Your task to perform on an android device: Open settings Image 0: 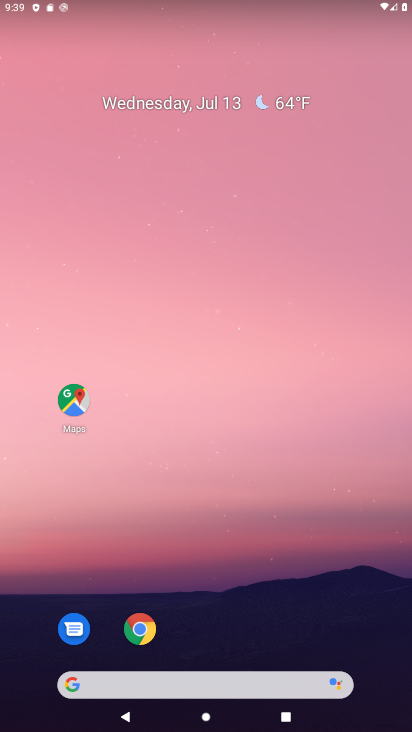
Step 0: drag from (247, 608) to (247, 283)
Your task to perform on an android device: Open settings Image 1: 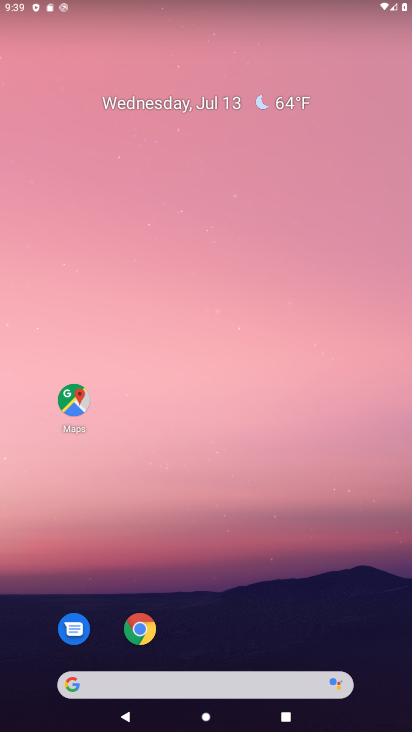
Step 1: drag from (273, 634) to (253, 232)
Your task to perform on an android device: Open settings Image 2: 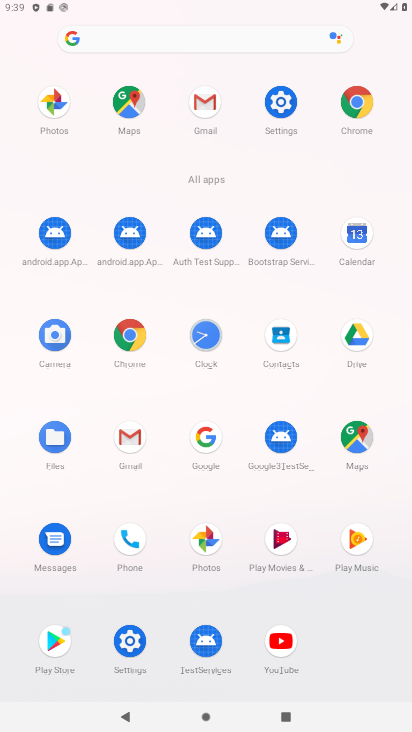
Step 2: click (279, 112)
Your task to perform on an android device: Open settings Image 3: 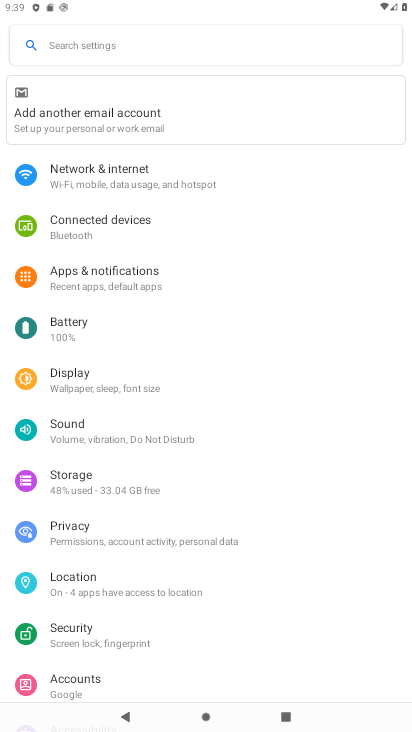
Step 3: task complete